Your task to perform on an android device: set the timer Image 0: 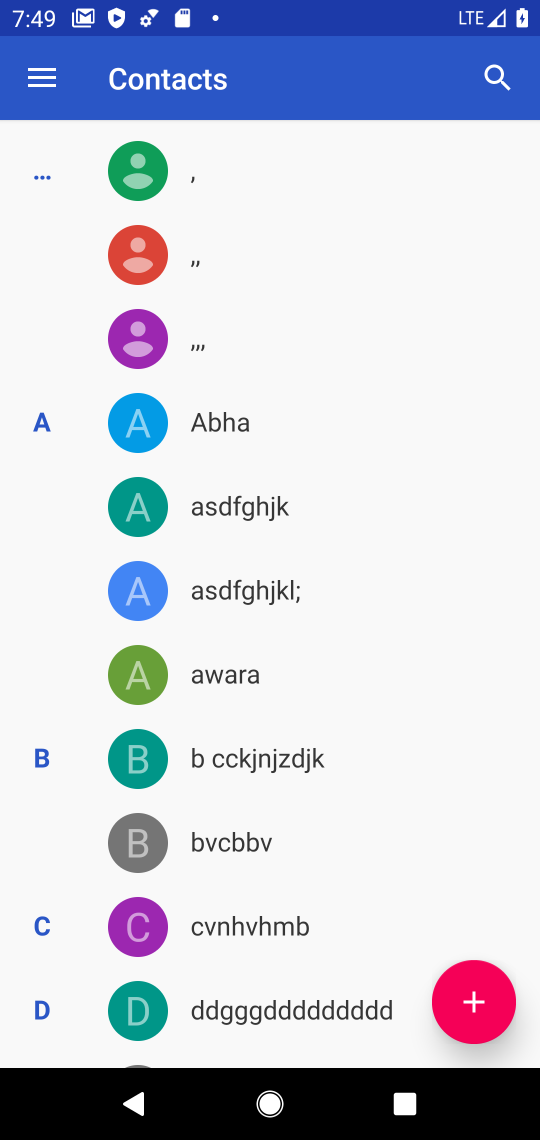
Step 0: press home button
Your task to perform on an android device: set the timer Image 1: 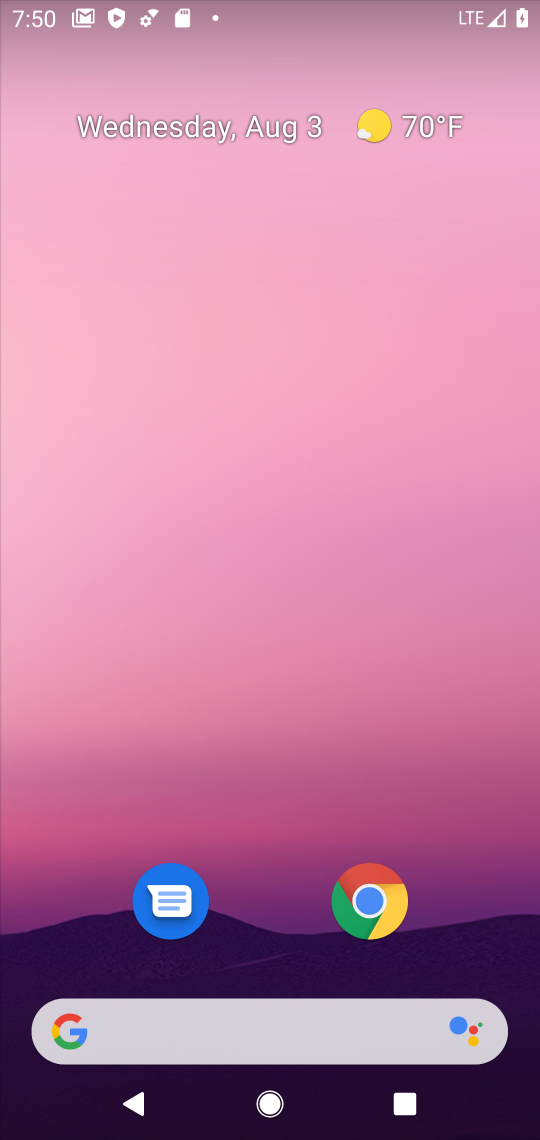
Step 1: drag from (477, 910) to (428, 405)
Your task to perform on an android device: set the timer Image 2: 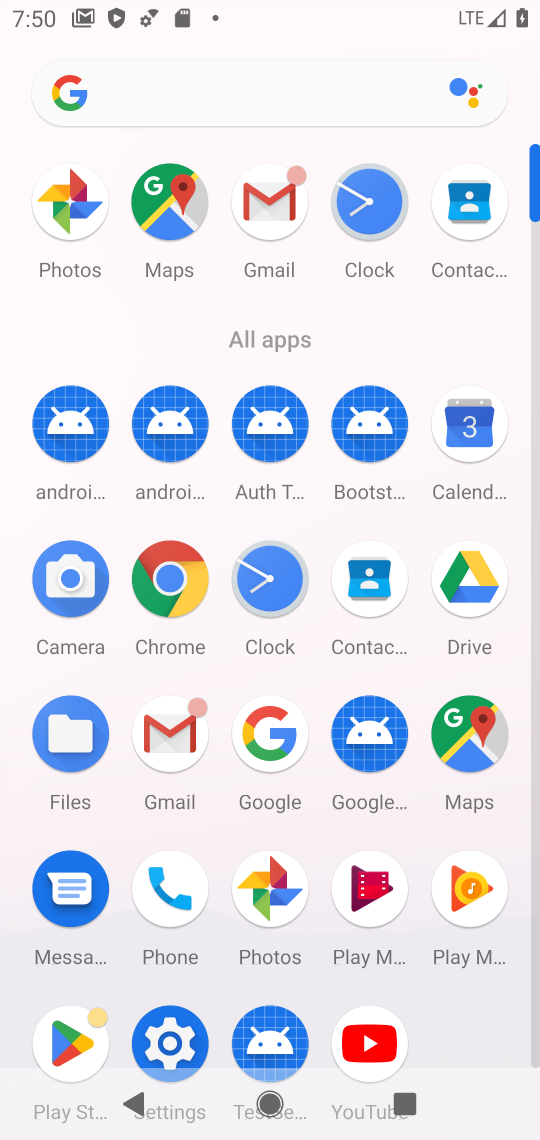
Step 2: click (357, 223)
Your task to perform on an android device: set the timer Image 3: 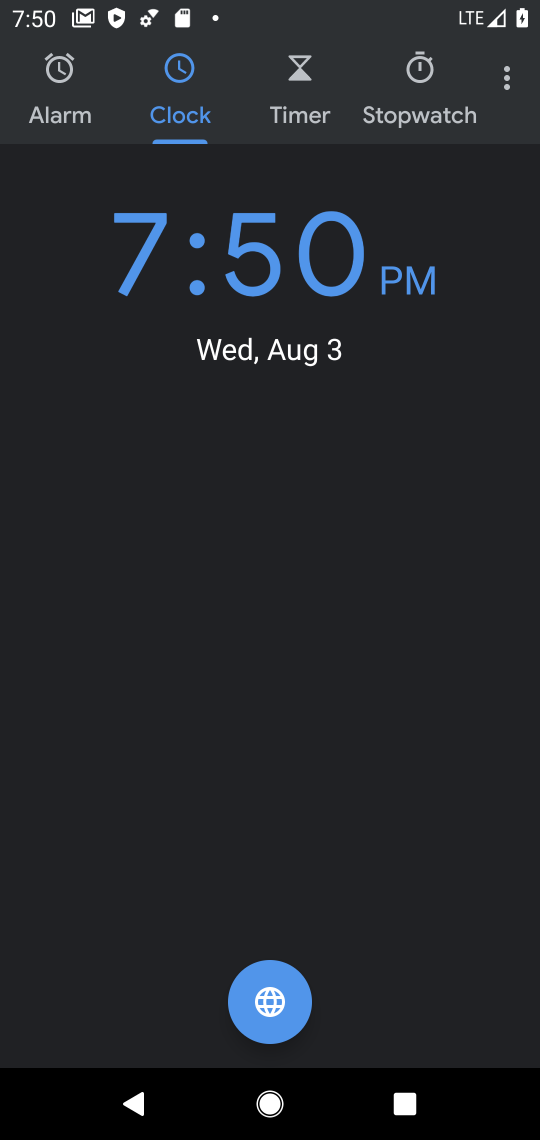
Step 3: click (314, 86)
Your task to perform on an android device: set the timer Image 4: 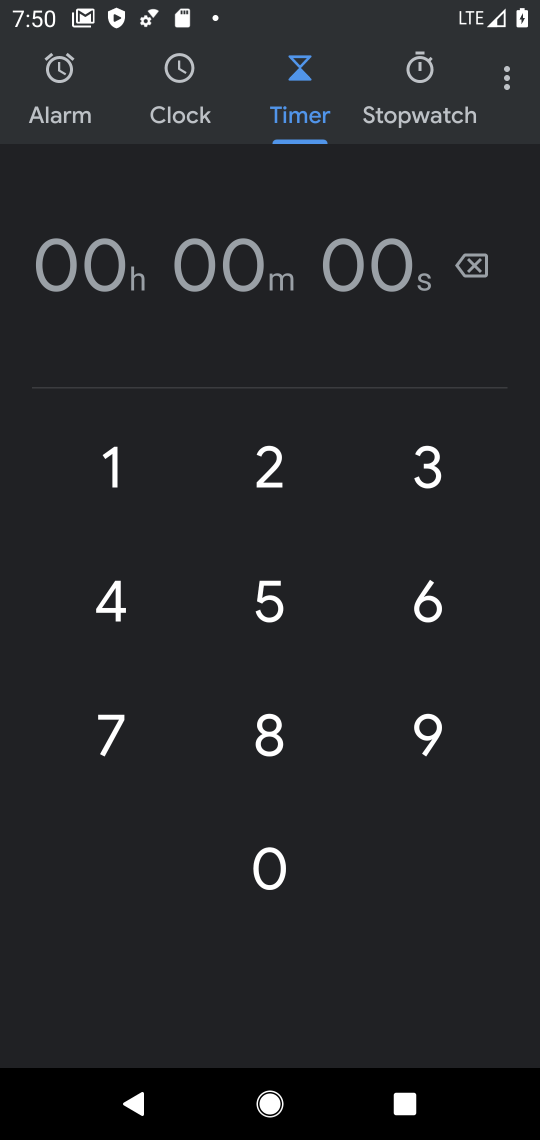
Step 4: click (438, 574)
Your task to perform on an android device: set the timer Image 5: 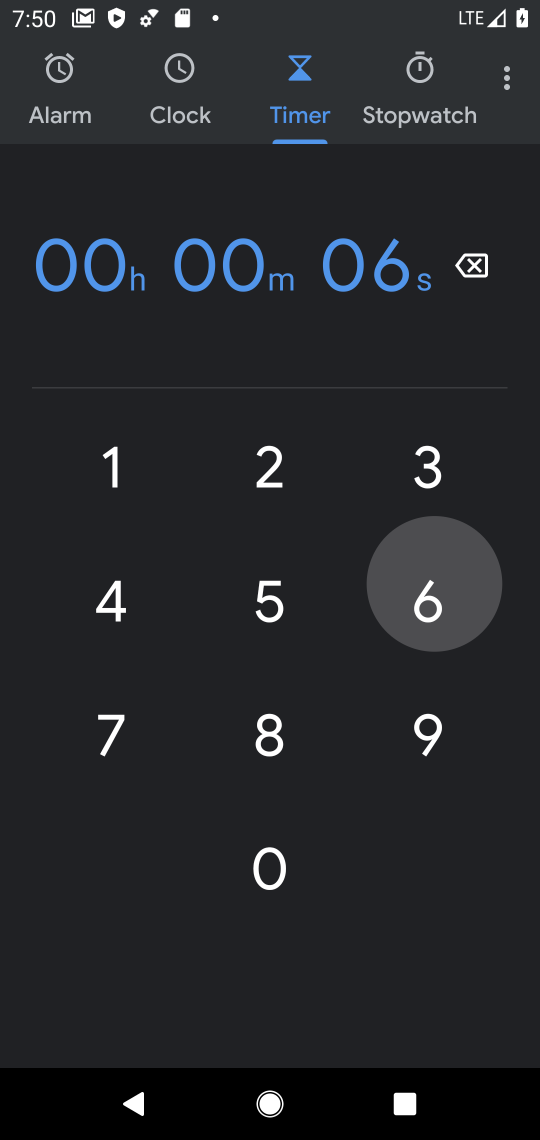
Step 5: click (438, 574)
Your task to perform on an android device: set the timer Image 6: 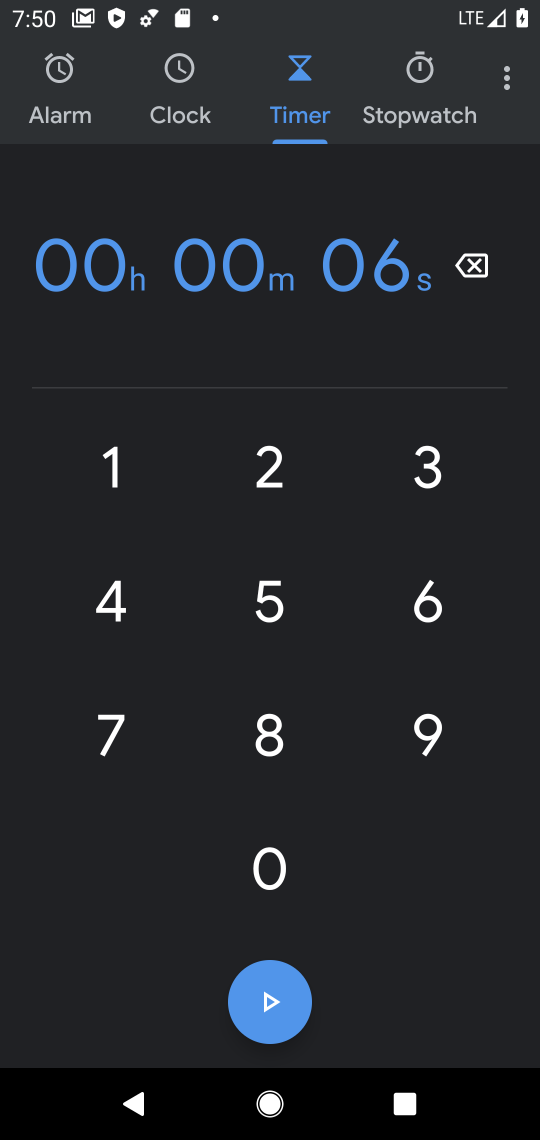
Step 6: click (438, 574)
Your task to perform on an android device: set the timer Image 7: 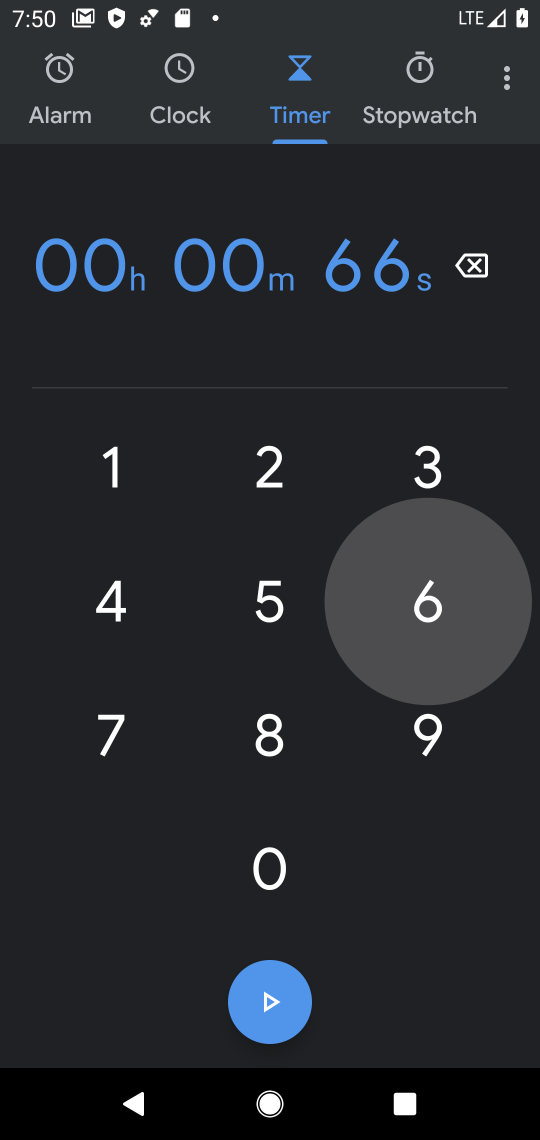
Step 7: click (438, 574)
Your task to perform on an android device: set the timer Image 8: 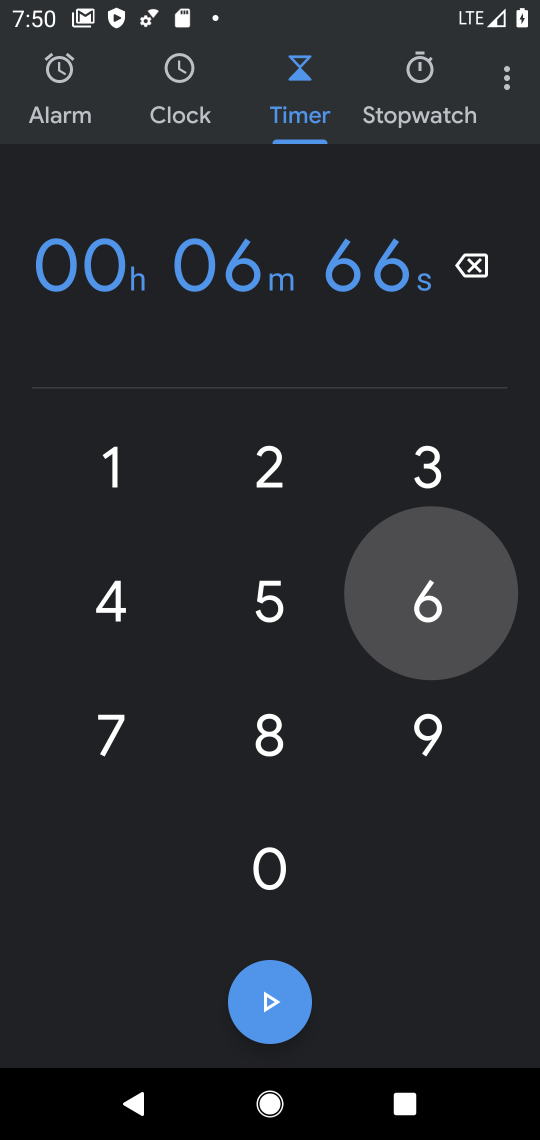
Step 8: click (438, 574)
Your task to perform on an android device: set the timer Image 9: 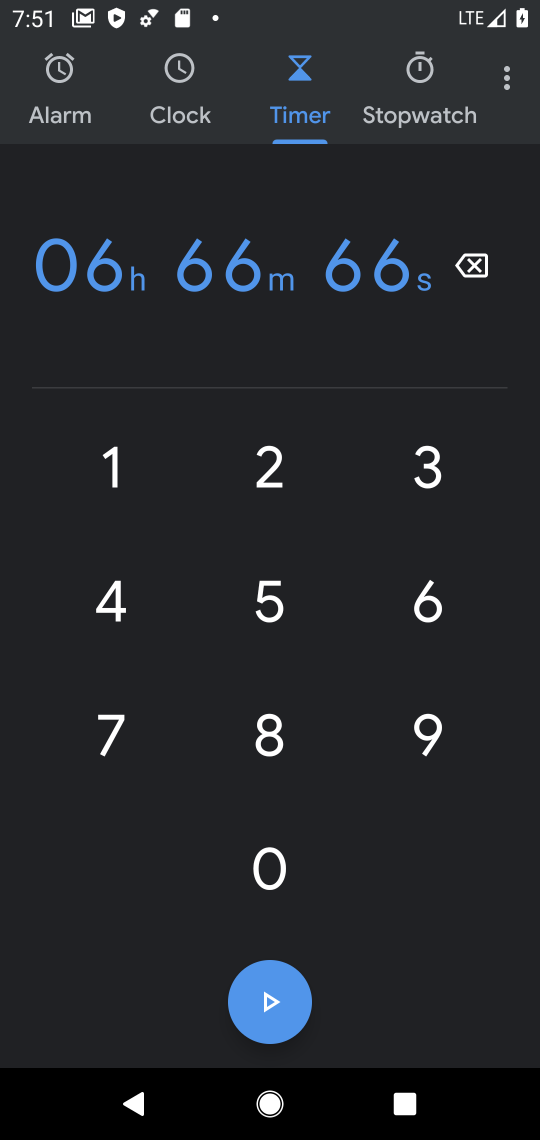
Step 9: click (412, 605)
Your task to perform on an android device: set the timer Image 10: 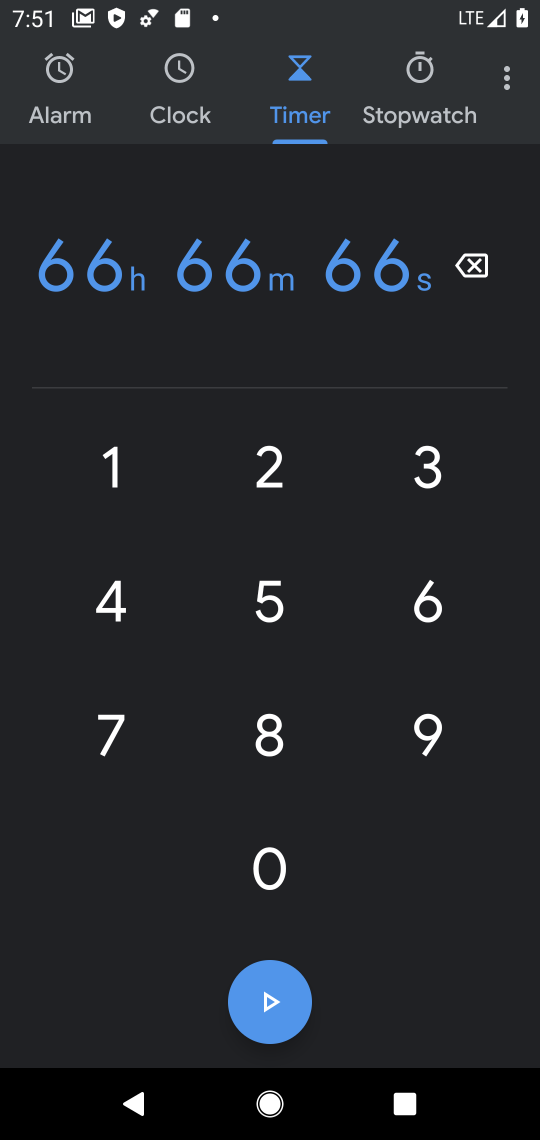
Step 10: task complete